Your task to perform on an android device: Open my contact list Image 0: 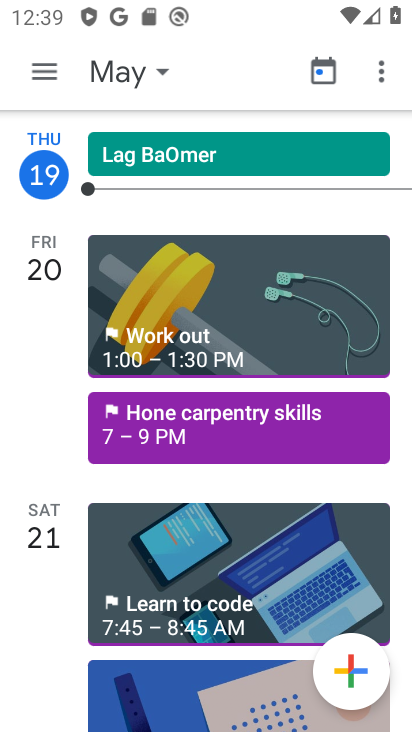
Step 0: press back button
Your task to perform on an android device: Open my contact list Image 1: 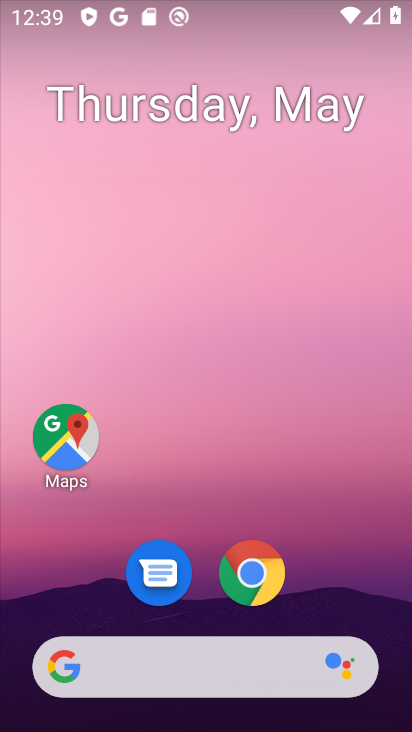
Step 1: drag from (311, 384) to (262, 18)
Your task to perform on an android device: Open my contact list Image 2: 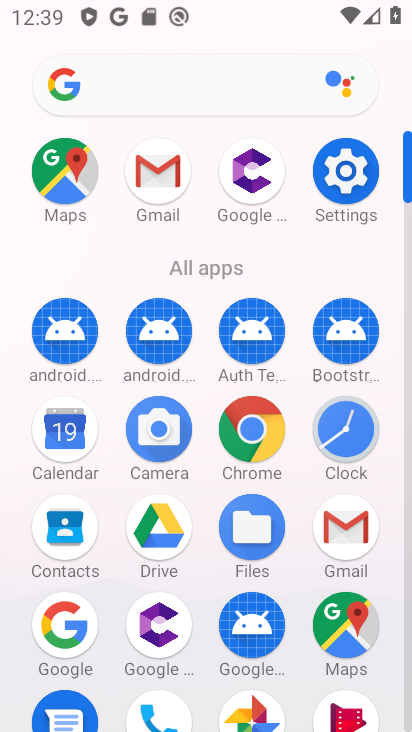
Step 2: click (60, 520)
Your task to perform on an android device: Open my contact list Image 3: 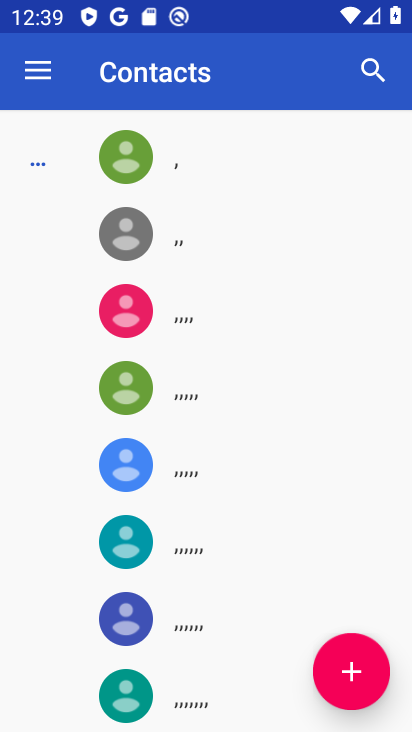
Step 3: task complete